Your task to perform on an android device: allow notifications from all sites in the chrome app Image 0: 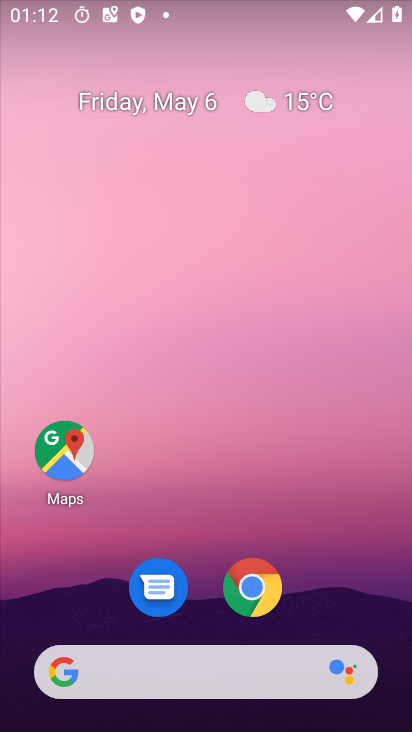
Step 0: click (237, 590)
Your task to perform on an android device: allow notifications from all sites in the chrome app Image 1: 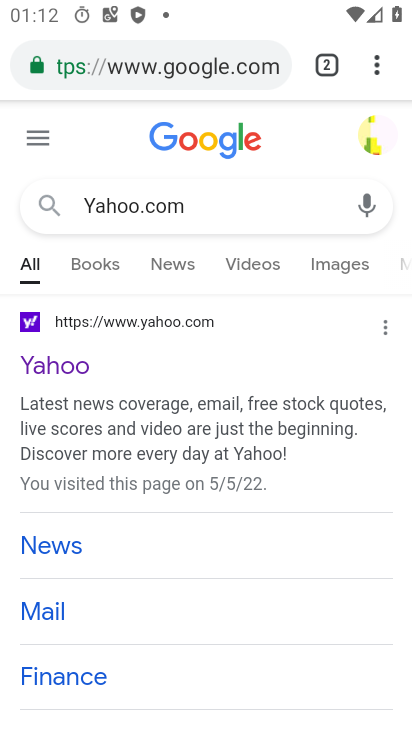
Step 1: click (375, 59)
Your task to perform on an android device: allow notifications from all sites in the chrome app Image 2: 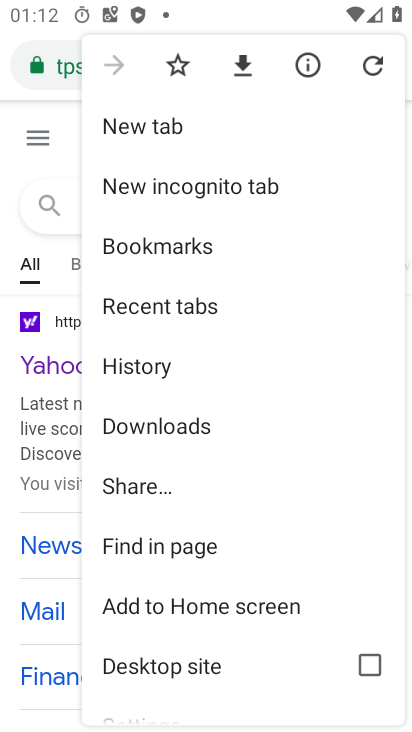
Step 2: drag from (308, 504) to (327, 266)
Your task to perform on an android device: allow notifications from all sites in the chrome app Image 3: 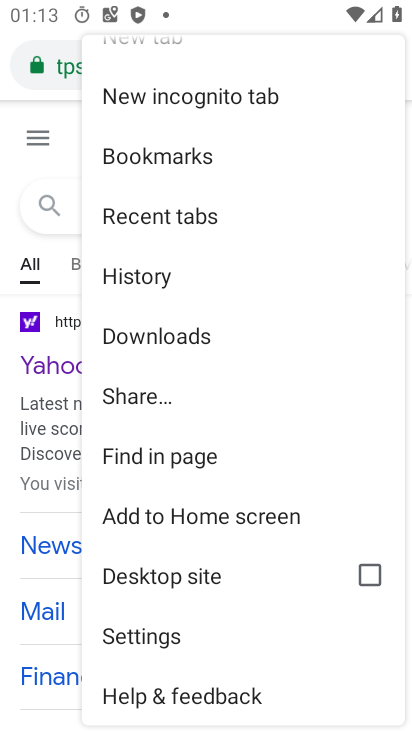
Step 3: click (164, 633)
Your task to perform on an android device: allow notifications from all sites in the chrome app Image 4: 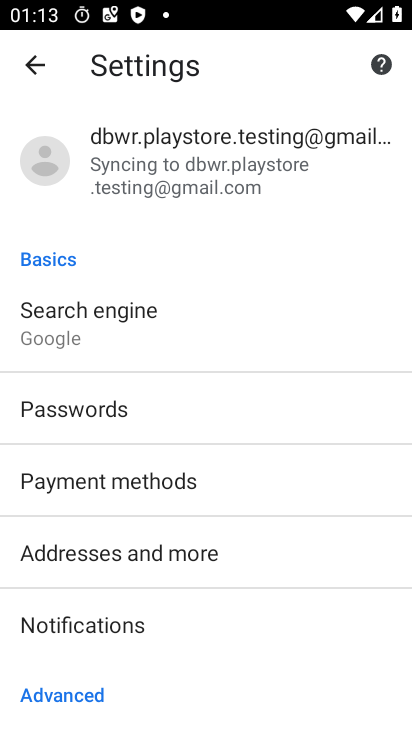
Step 4: drag from (258, 647) to (318, 290)
Your task to perform on an android device: allow notifications from all sites in the chrome app Image 5: 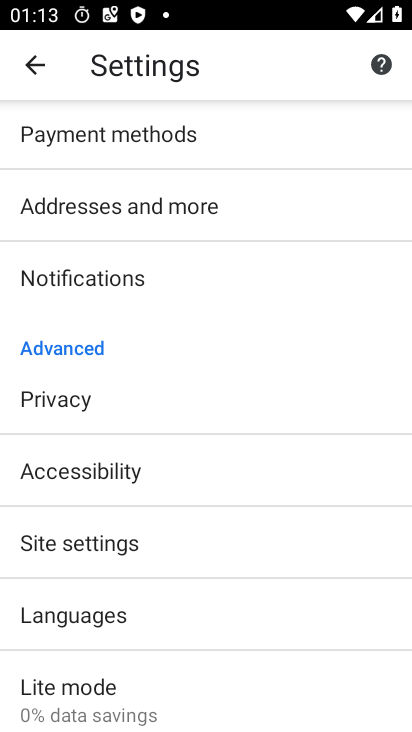
Step 5: click (91, 547)
Your task to perform on an android device: allow notifications from all sites in the chrome app Image 6: 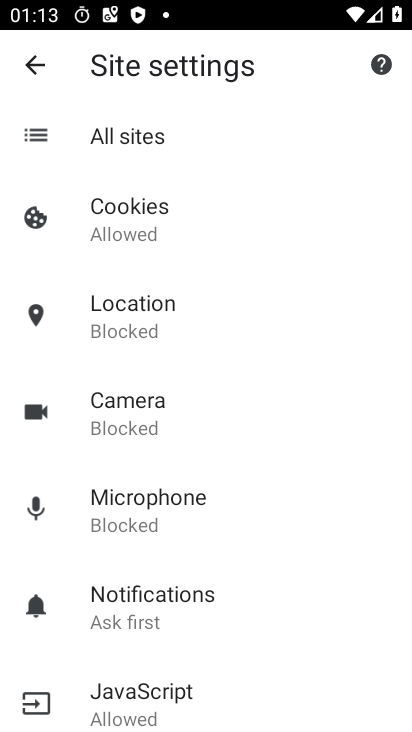
Step 6: click (124, 594)
Your task to perform on an android device: allow notifications from all sites in the chrome app Image 7: 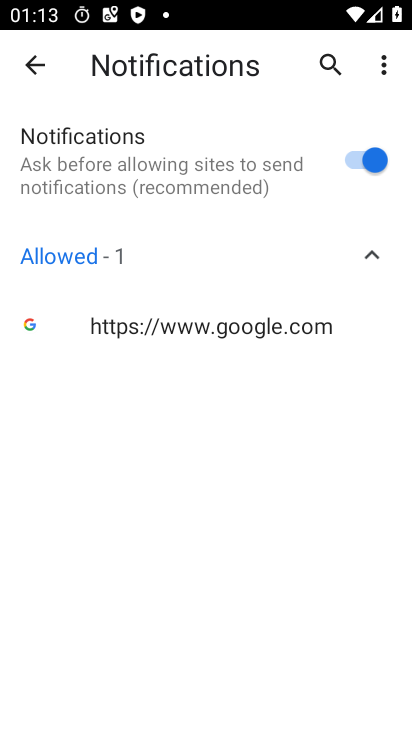
Step 7: task complete